Your task to perform on an android device: Open Chrome and go to settings Image 0: 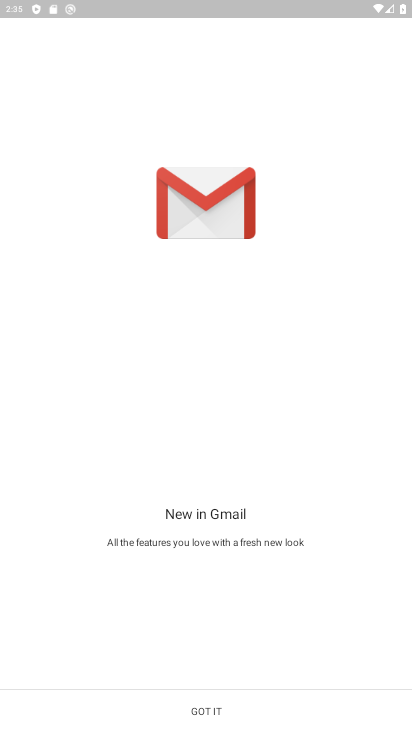
Step 0: press home button
Your task to perform on an android device: Open Chrome and go to settings Image 1: 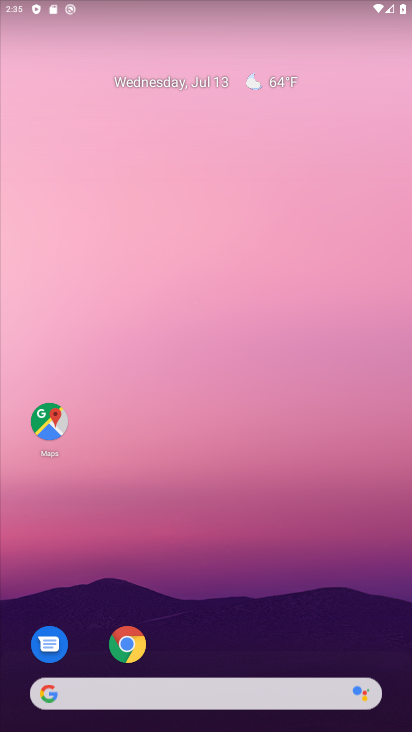
Step 1: click (130, 638)
Your task to perform on an android device: Open Chrome and go to settings Image 2: 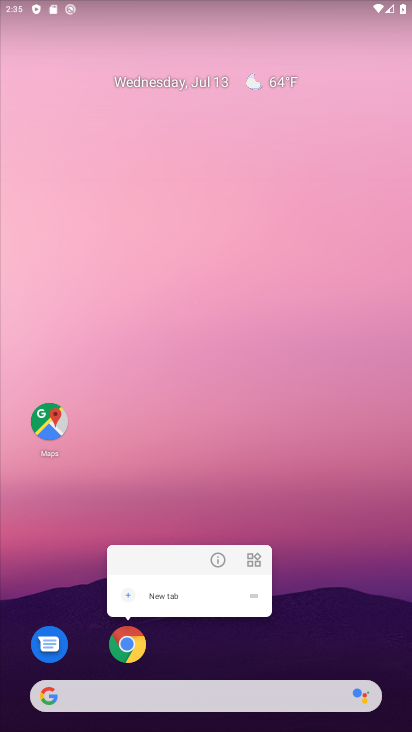
Step 2: click (125, 642)
Your task to perform on an android device: Open Chrome and go to settings Image 3: 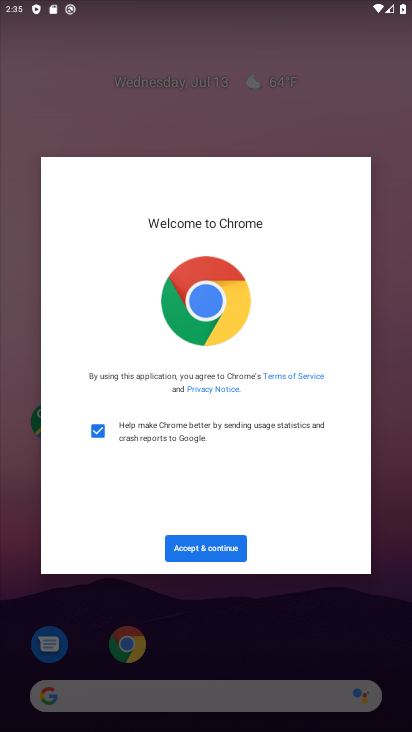
Step 3: click (204, 551)
Your task to perform on an android device: Open Chrome and go to settings Image 4: 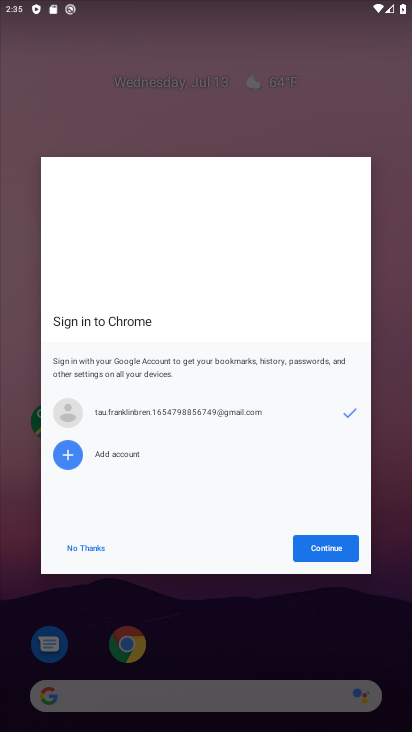
Step 4: click (321, 546)
Your task to perform on an android device: Open Chrome and go to settings Image 5: 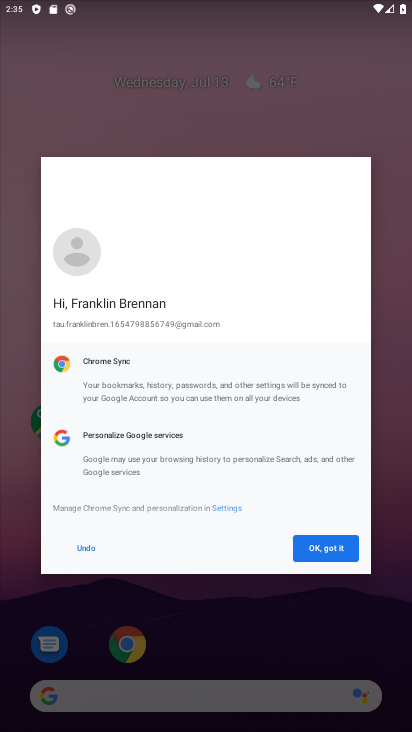
Step 5: click (336, 549)
Your task to perform on an android device: Open Chrome and go to settings Image 6: 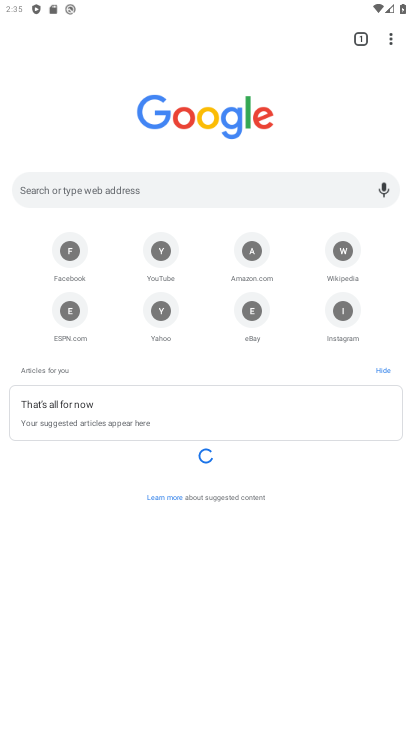
Step 6: click (392, 40)
Your task to perform on an android device: Open Chrome and go to settings Image 7: 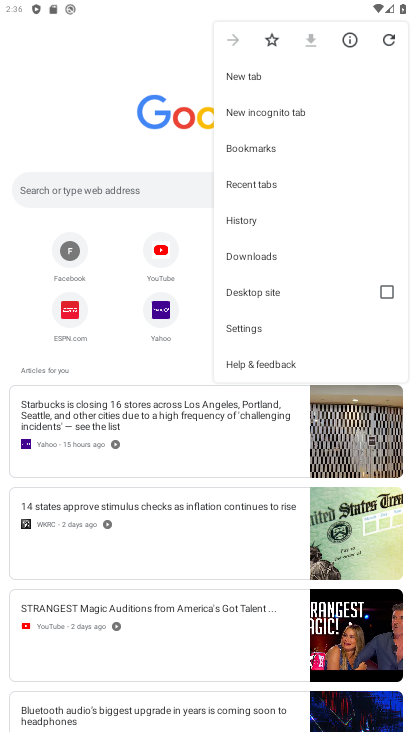
Step 7: click (275, 321)
Your task to perform on an android device: Open Chrome and go to settings Image 8: 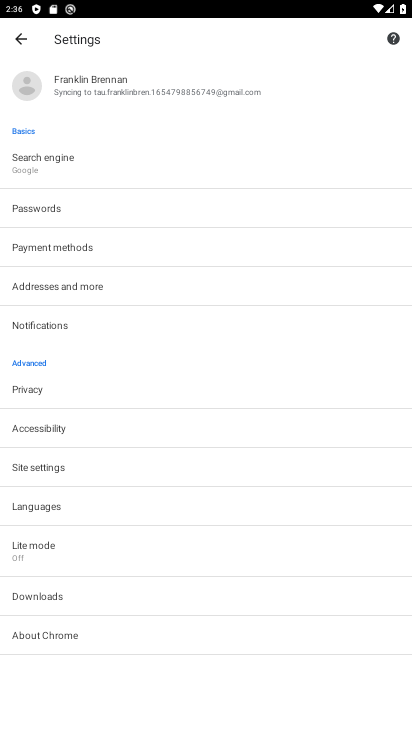
Step 8: task complete